Your task to perform on an android device: set an alarm Image 0: 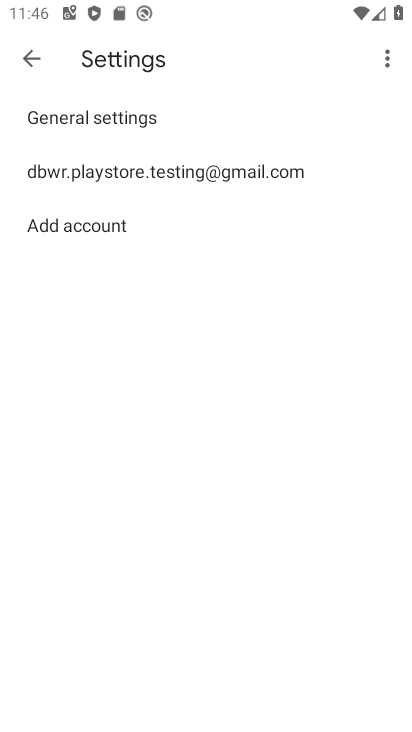
Step 0: press home button
Your task to perform on an android device: set an alarm Image 1: 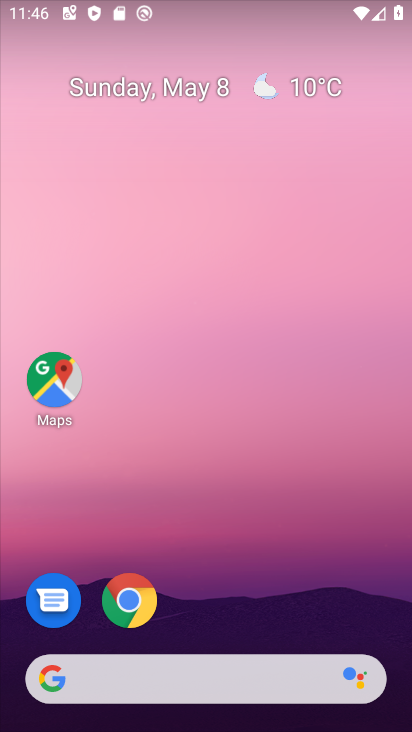
Step 1: drag from (207, 636) to (258, 266)
Your task to perform on an android device: set an alarm Image 2: 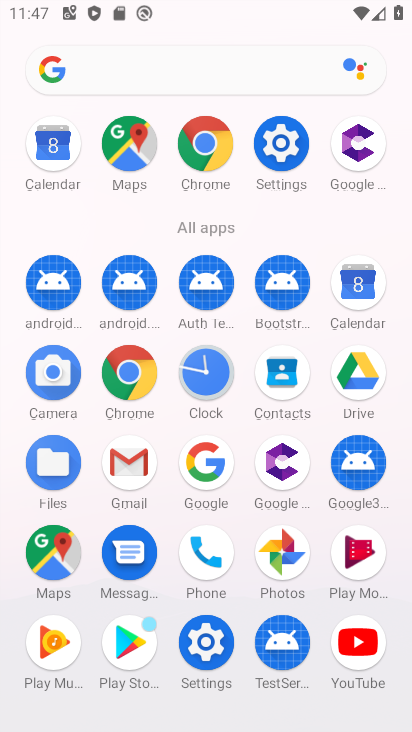
Step 2: click (207, 371)
Your task to perform on an android device: set an alarm Image 3: 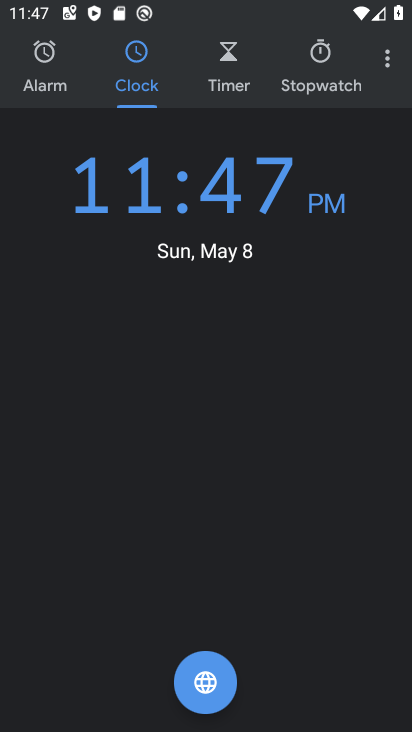
Step 3: click (31, 76)
Your task to perform on an android device: set an alarm Image 4: 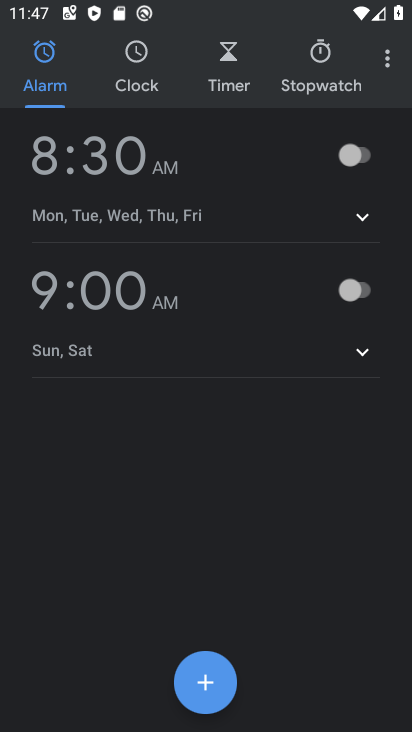
Step 4: click (345, 150)
Your task to perform on an android device: set an alarm Image 5: 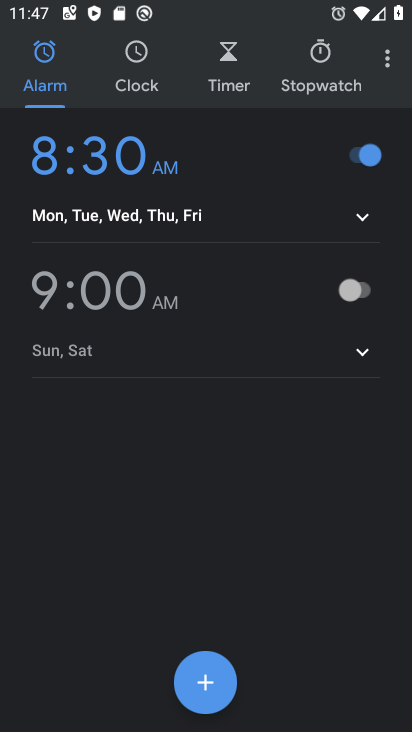
Step 5: task complete